Your task to perform on an android device: Open Chrome and go to the settings page Image 0: 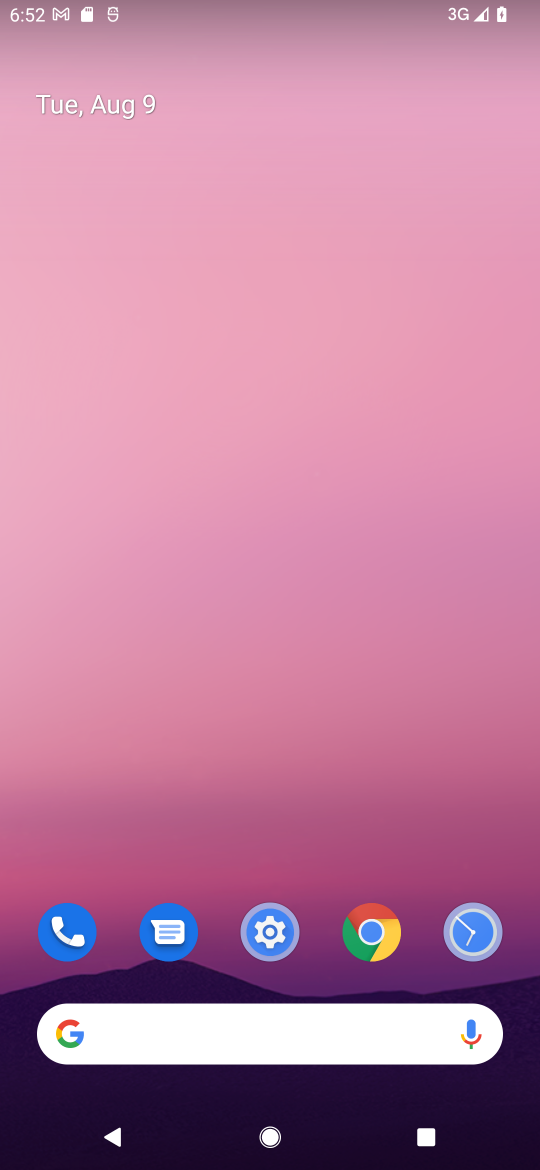
Step 0: drag from (252, 696) to (241, 51)
Your task to perform on an android device: Open Chrome and go to the settings page Image 1: 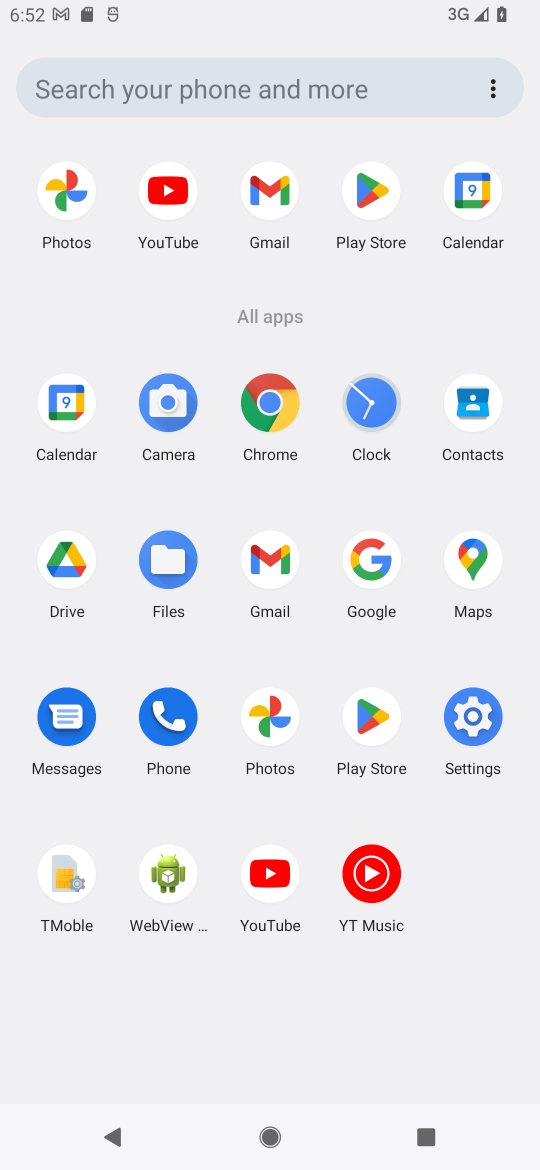
Step 1: click (457, 725)
Your task to perform on an android device: Open Chrome and go to the settings page Image 2: 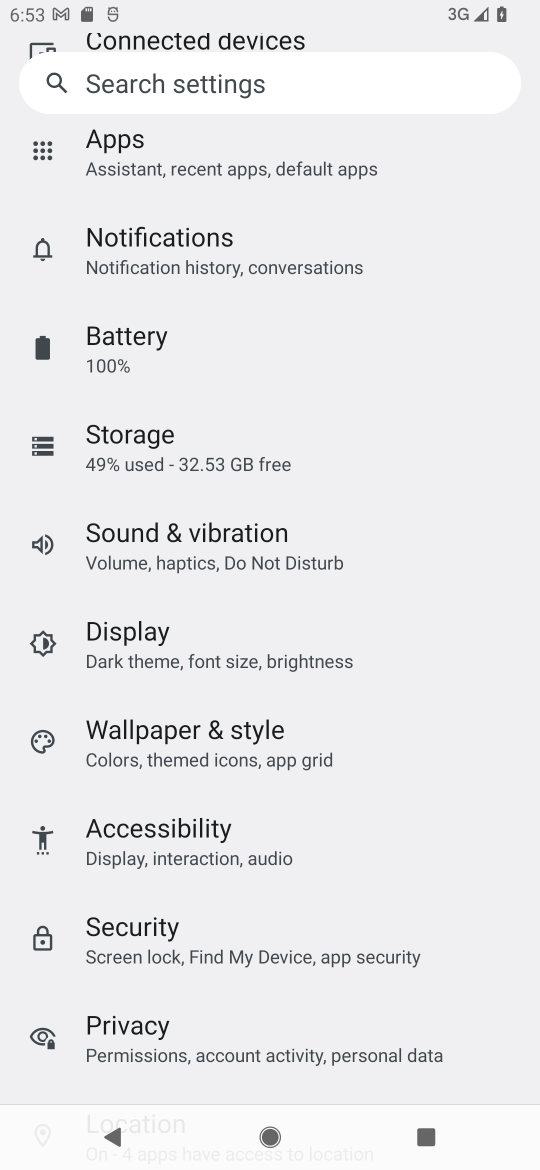
Step 2: press home button
Your task to perform on an android device: Open Chrome and go to the settings page Image 3: 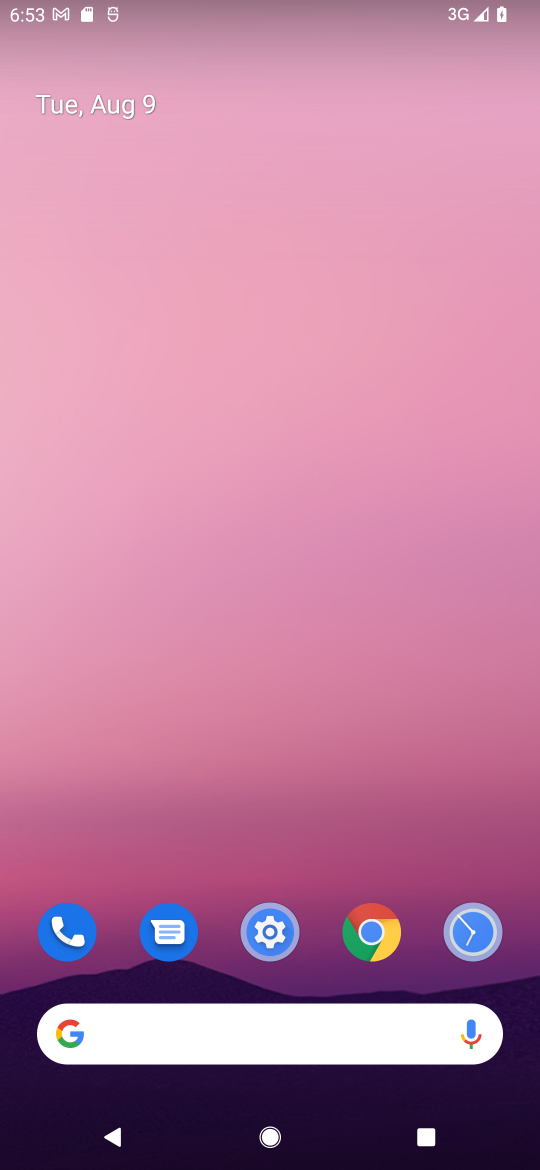
Step 3: click (368, 929)
Your task to perform on an android device: Open Chrome and go to the settings page Image 4: 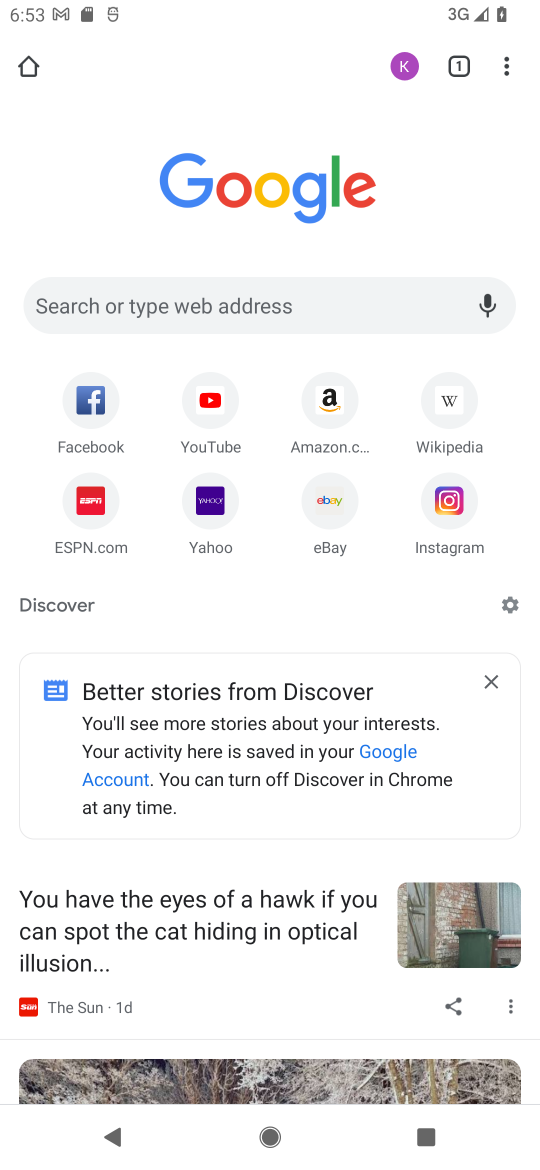
Step 4: click (505, 80)
Your task to perform on an android device: Open Chrome and go to the settings page Image 5: 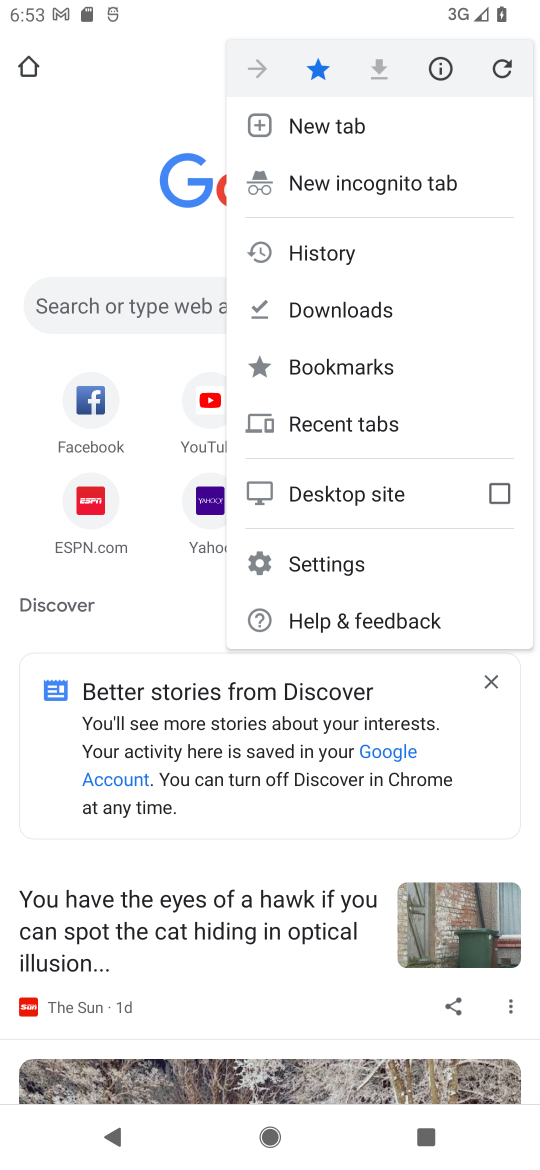
Step 5: click (323, 571)
Your task to perform on an android device: Open Chrome and go to the settings page Image 6: 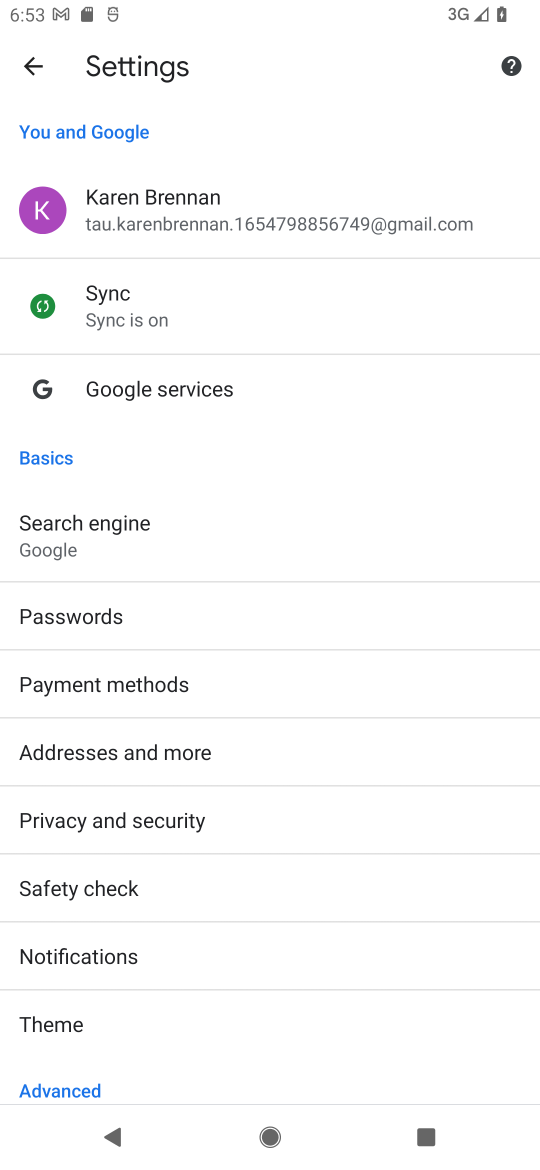
Step 6: task complete